Your task to perform on an android device: Open Android settings Image 0: 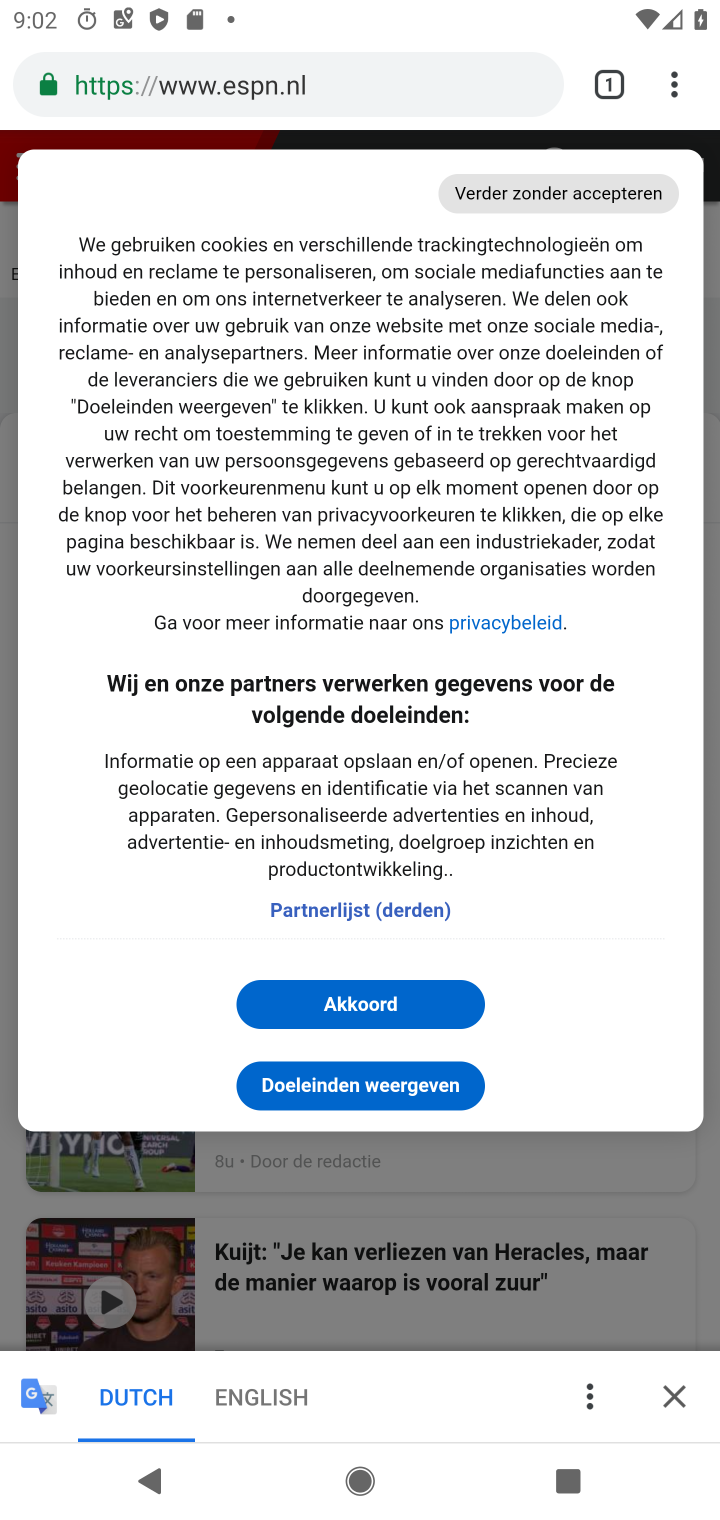
Step 0: press home button
Your task to perform on an android device: Open Android settings Image 1: 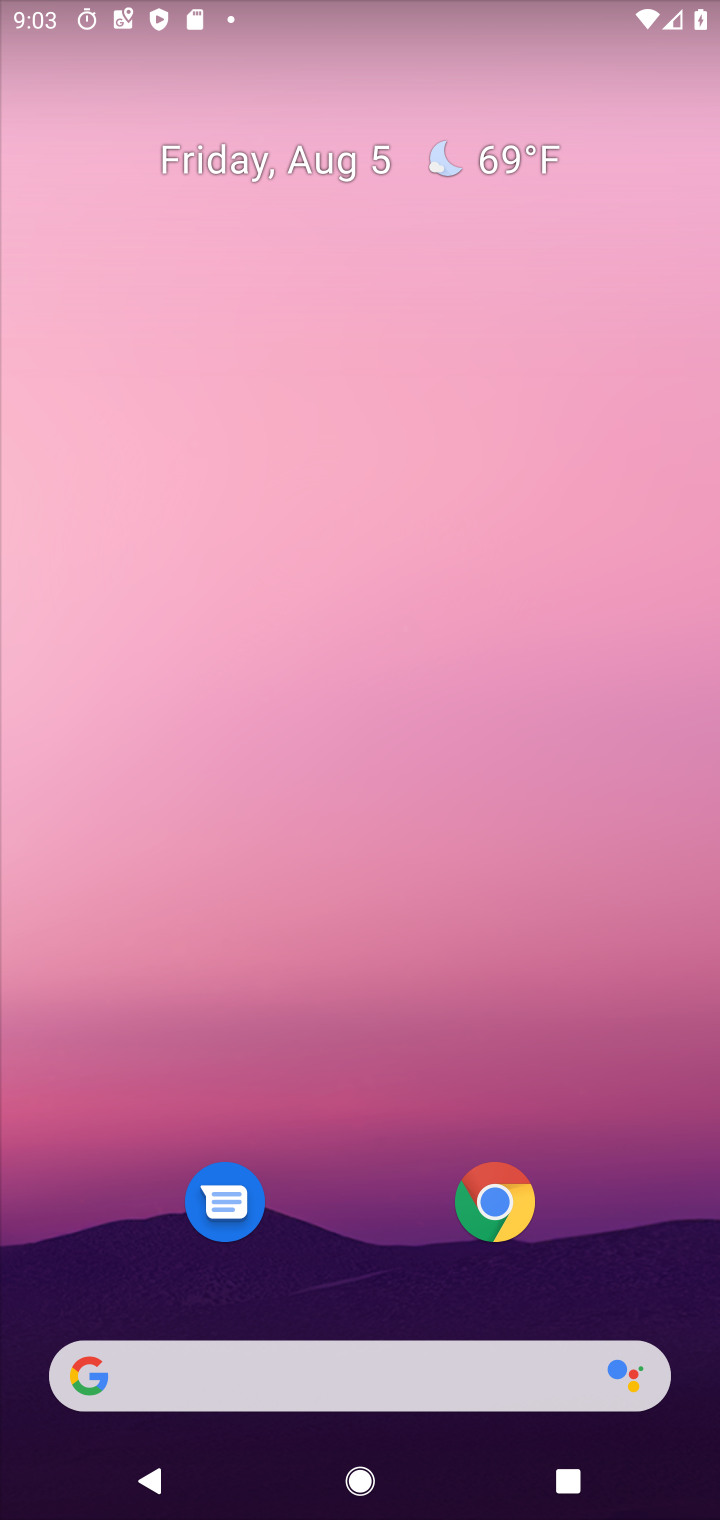
Step 1: drag from (347, 1254) to (379, 310)
Your task to perform on an android device: Open Android settings Image 2: 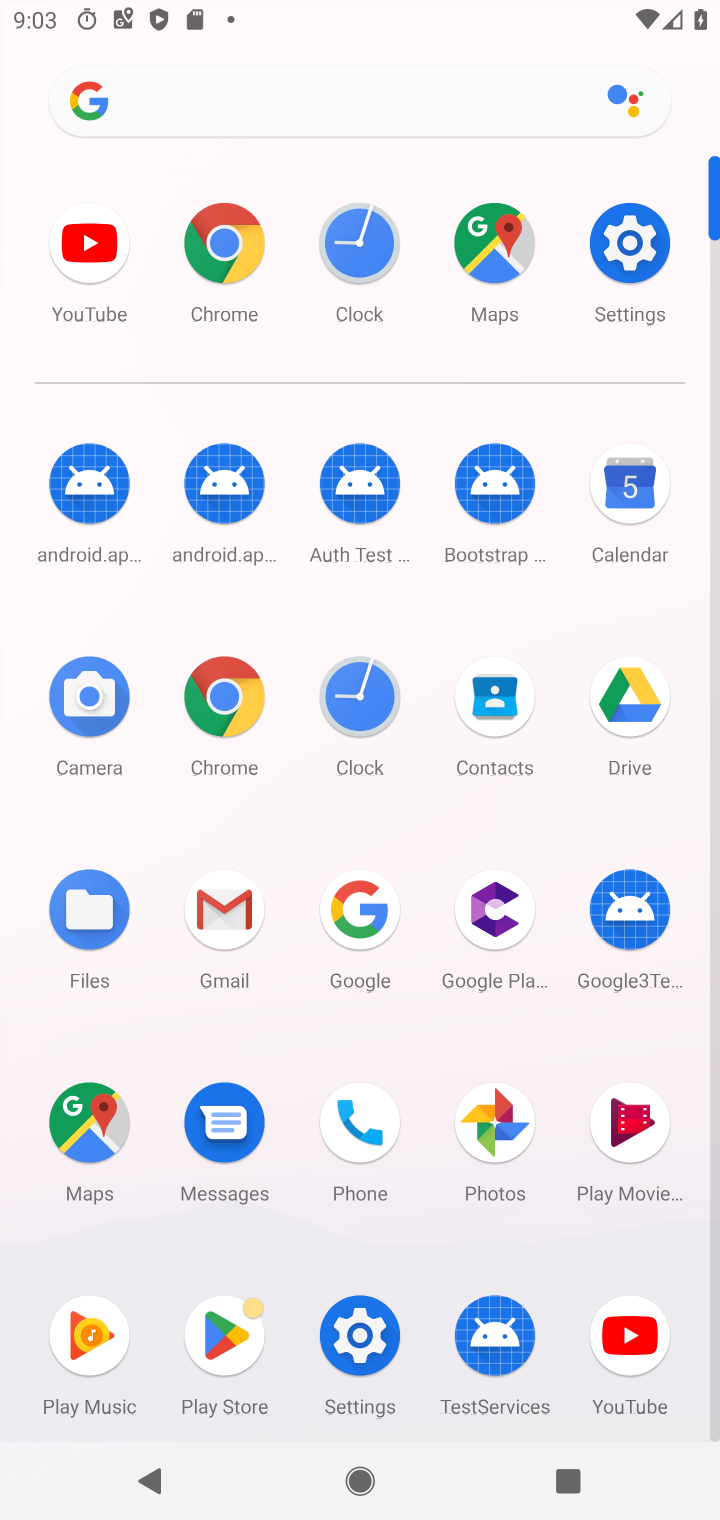
Step 2: click (349, 1351)
Your task to perform on an android device: Open Android settings Image 3: 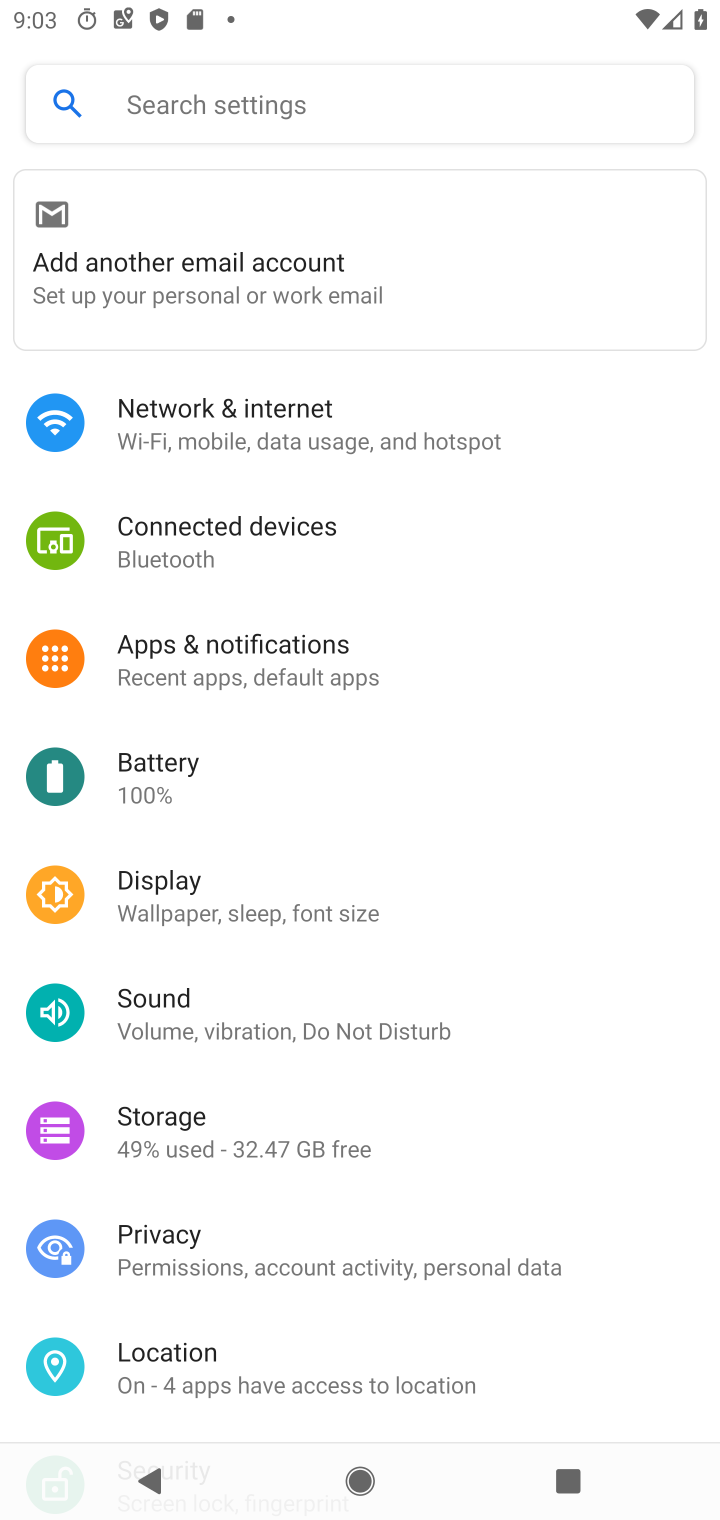
Step 3: drag from (361, 1307) to (308, 407)
Your task to perform on an android device: Open Android settings Image 4: 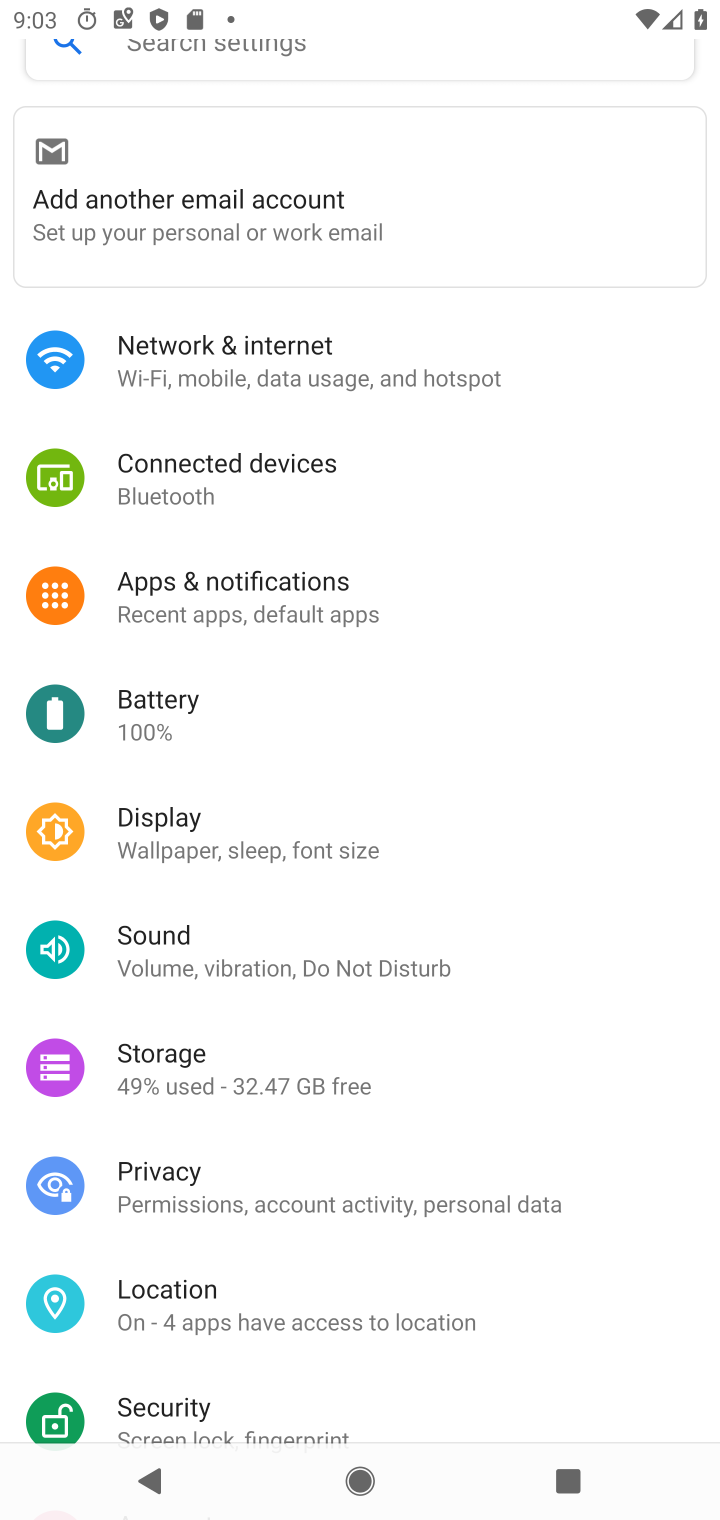
Step 4: drag from (241, 1280) to (198, 67)
Your task to perform on an android device: Open Android settings Image 5: 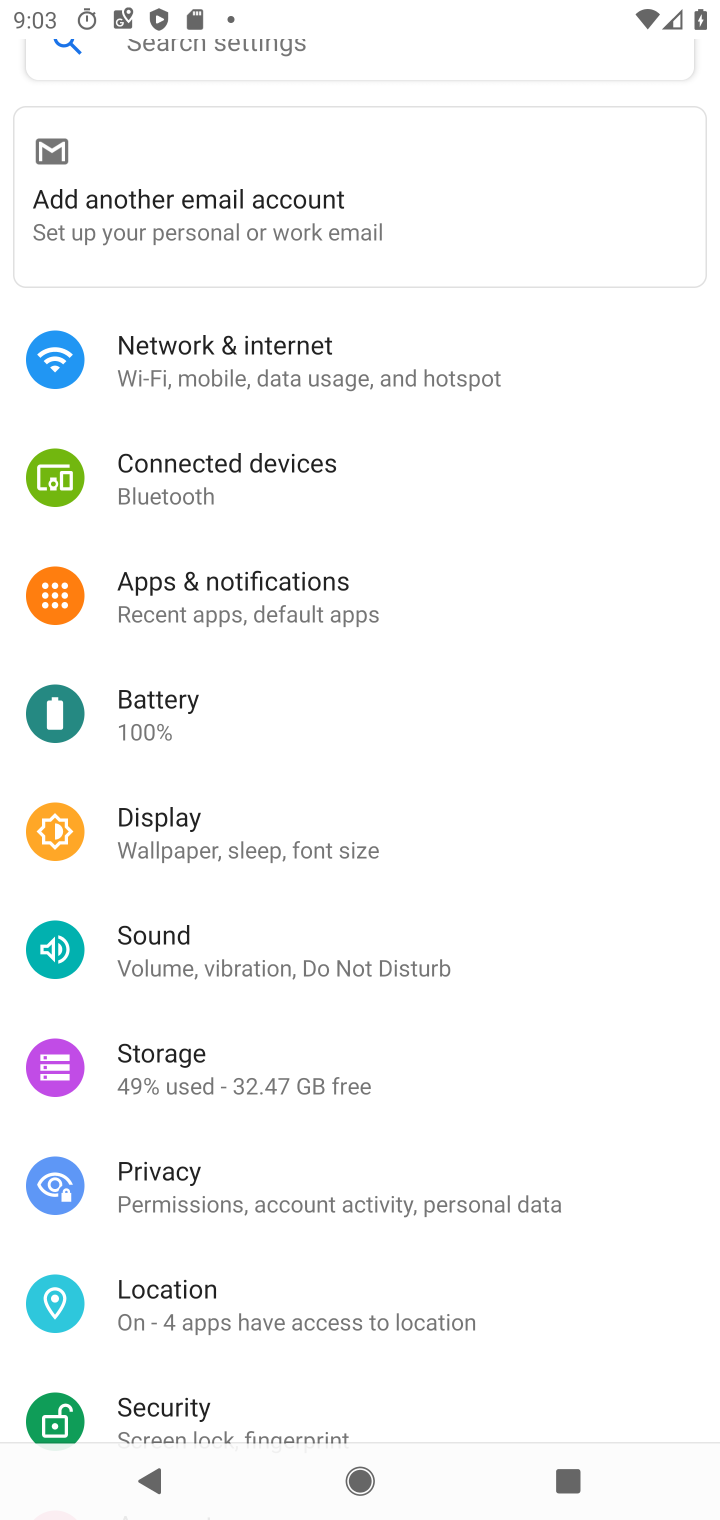
Step 5: drag from (180, 1352) to (223, 765)
Your task to perform on an android device: Open Android settings Image 6: 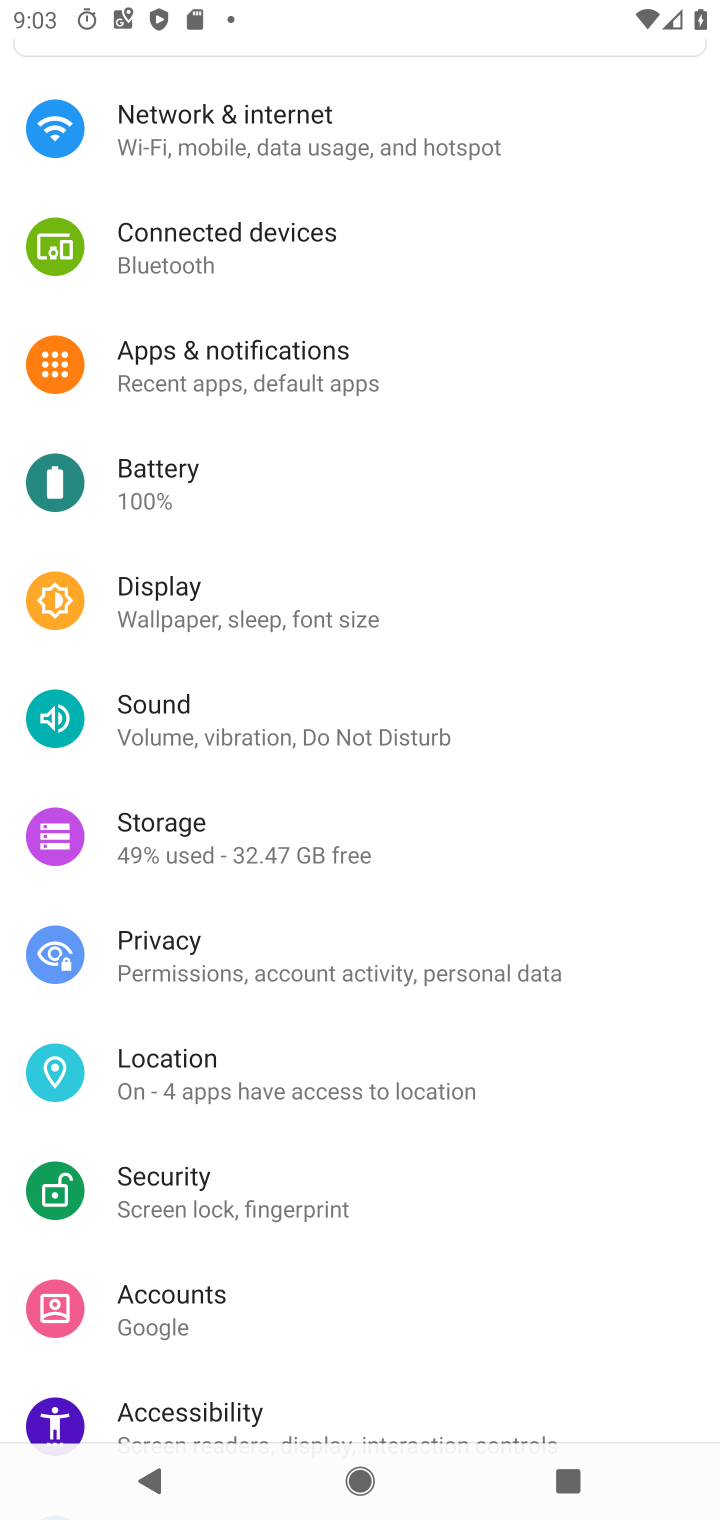
Step 6: drag from (280, 1347) to (231, 380)
Your task to perform on an android device: Open Android settings Image 7: 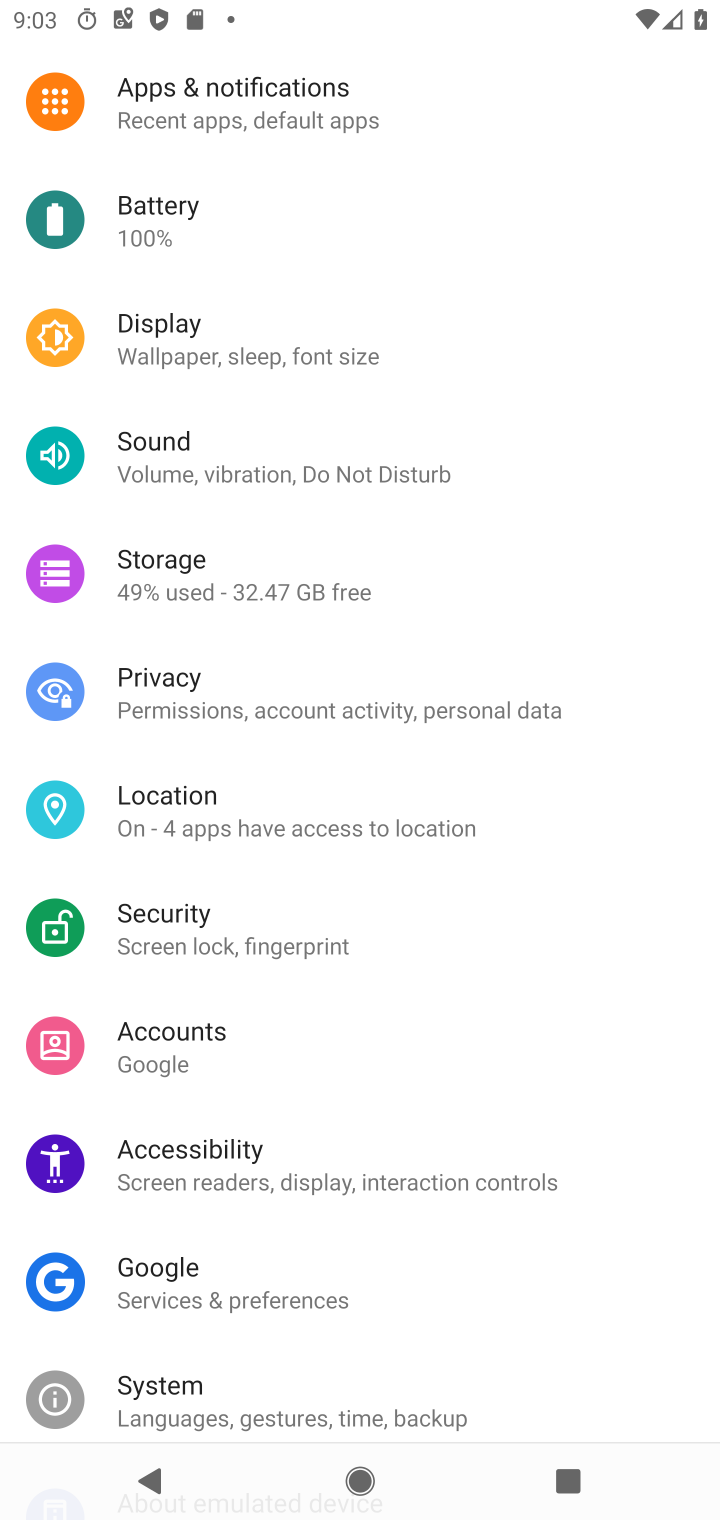
Step 7: click (241, 1407)
Your task to perform on an android device: Open Android settings Image 8: 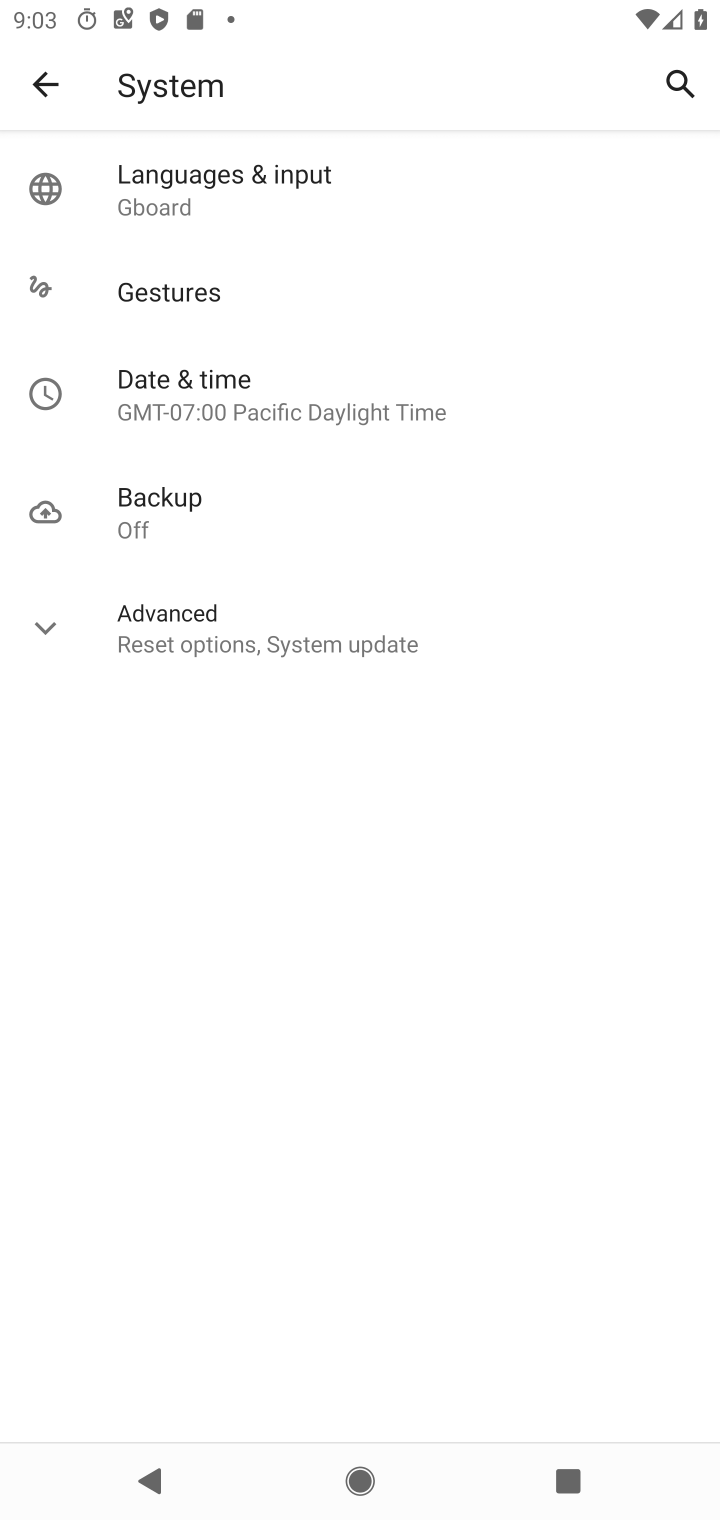
Step 8: task complete